Your task to perform on an android device: Go to Yahoo.com Image 0: 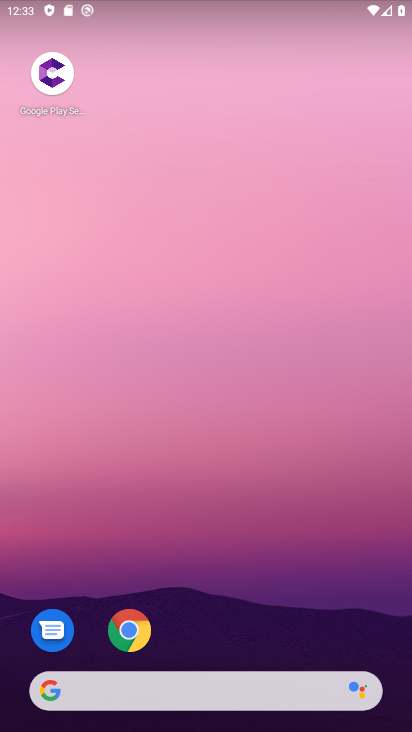
Step 0: click (119, 614)
Your task to perform on an android device: Go to Yahoo.com Image 1: 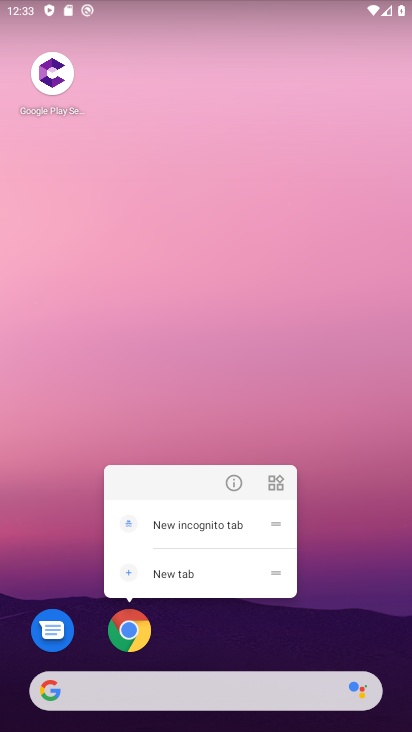
Step 1: click (119, 614)
Your task to perform on an android device: Go to Yahoo.com Image 2: 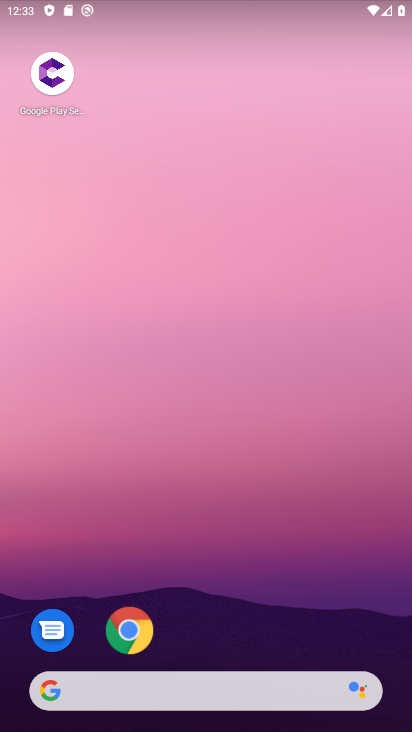
Step 2: click (119, 614)
Your task to perform on an android device: Go to Yahoo.com Image 3: 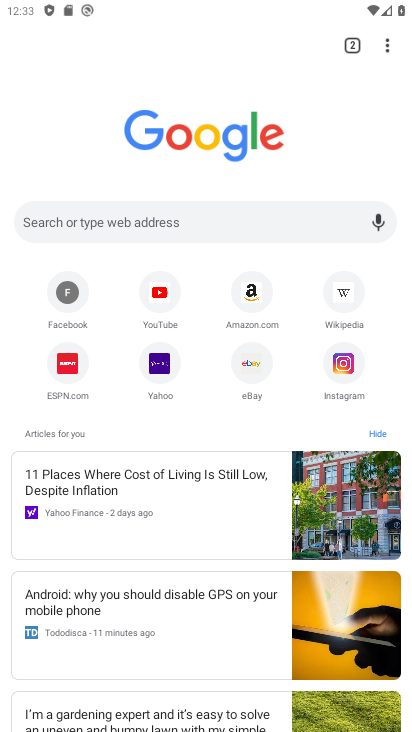
Step 3: click (163, 359)
Your task to perform on an android device: Go to Yahoo.com Image 4: 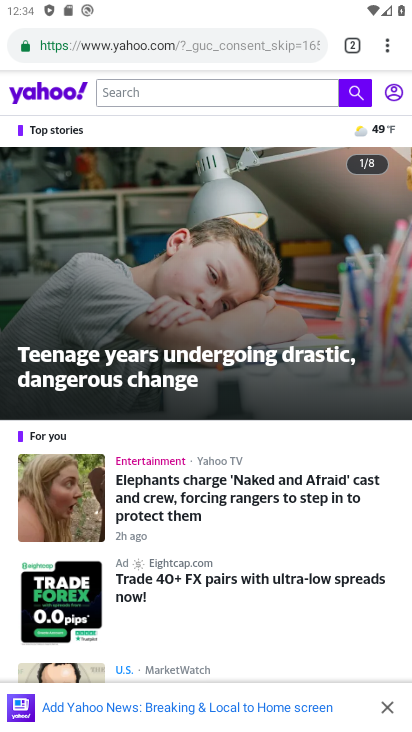
Step 4: task complete